Your task to perform on an android device: make emails show in primary in the gmail app Image 0: 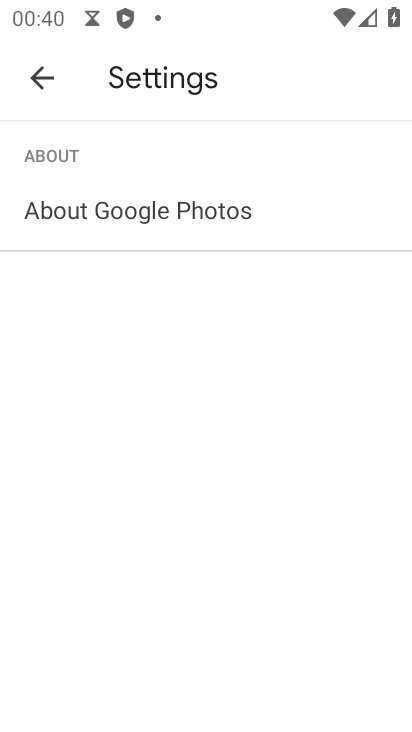
Step 0: press home button
Your task to perform on an android device: make emails show in primary in the gmail app Image 1: 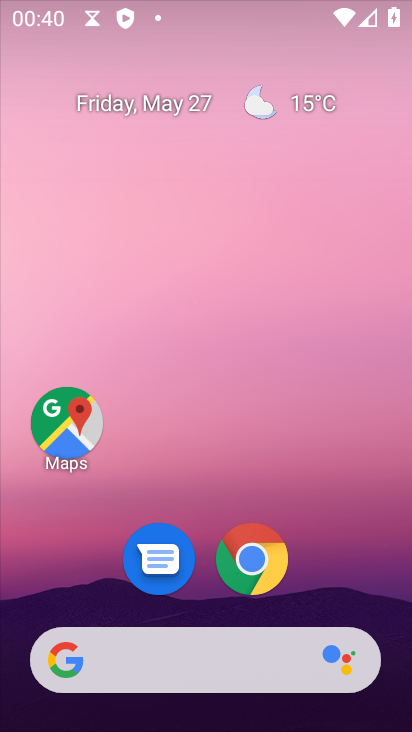
Step 1: drag from (316, 541) to (145, 33)
Your task to perform on an android device: make emails show in primary in the gmail app Image 2: 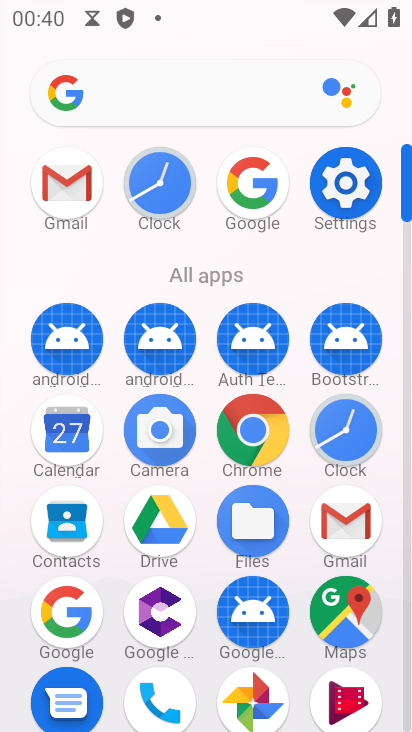
Step 2: click (70, 204)
Your task to perform on an android device: make emails show in primary in the gmail app Image 3: 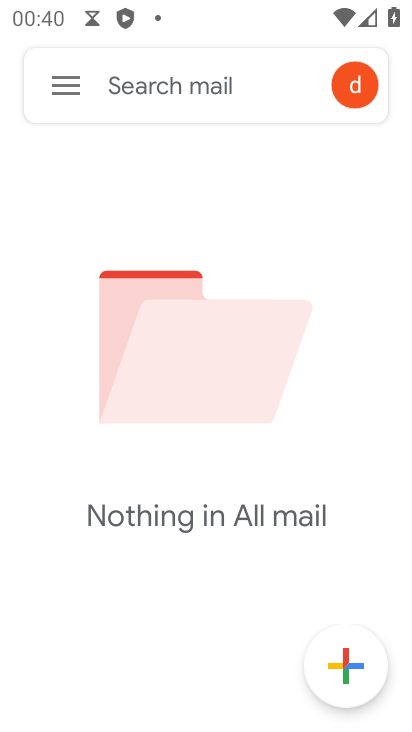
Step 3: click (77, 87)
Your task to perform on an android device: make emails show in primary in the gmail app Image 4: 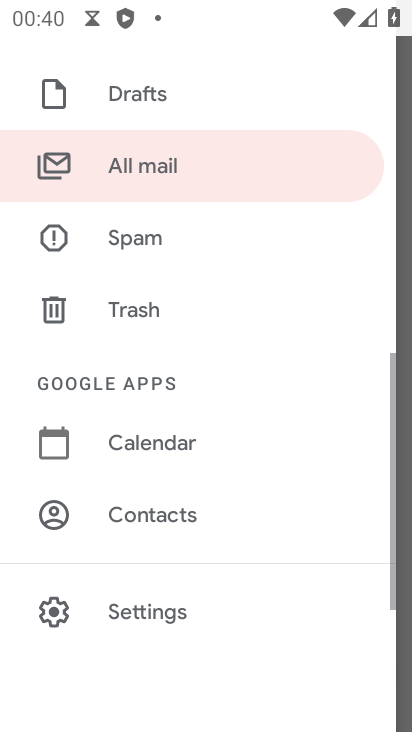
Step 4: drag from (206, 161) to (156, 655)
Your task to perform on an android device: make emails show in primary in the gmail app Image 5: 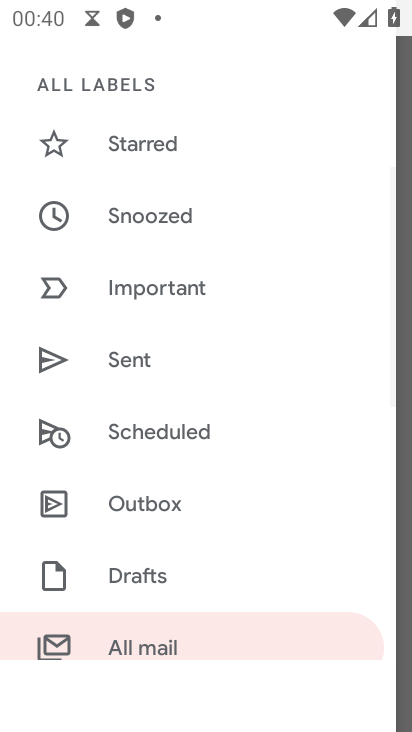
Step 5: drag from (158, 197) to (176, 590)
Your task to perform on an android device: make emails show in primary in the gmail app Image 6: 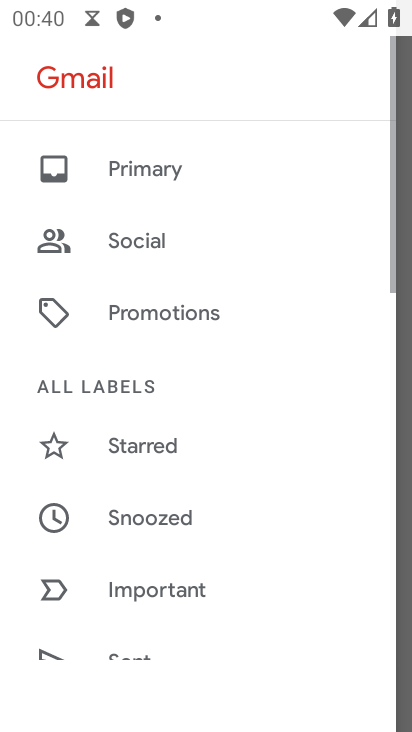
Step 6: drag from (213, 235) to (221, 579)
Your task to perform on an android device: make emails show in primary in the gmail app Image 7: 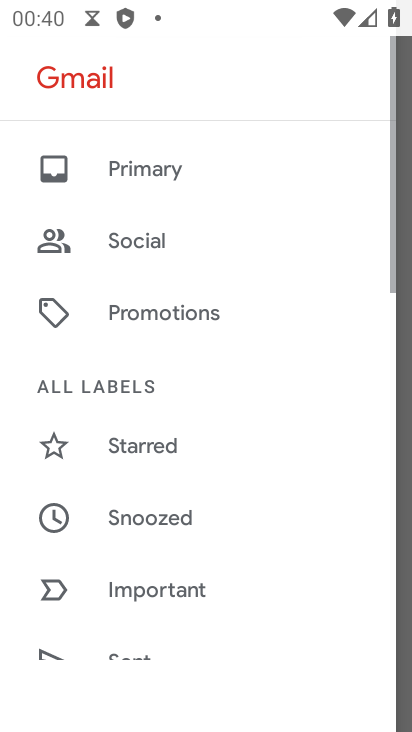
Step 7: click (165, 164)
Your task to perform on an android device: make emails show in primary in the gmail app Image 8: 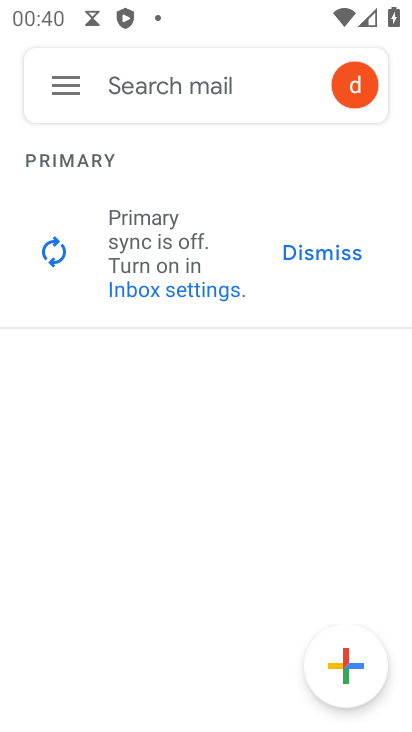
Step 8: task complete